Your task to perform on an android device: Open Reddit.com Image 0: 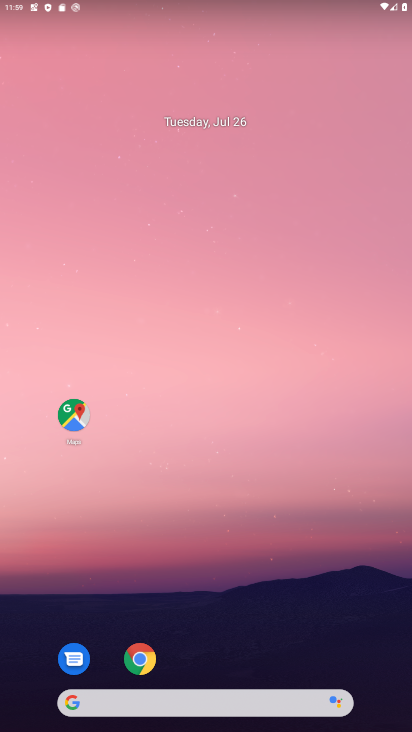
Step 0: click (141, 692)
Your task to perform on an android device: Open Reddit.com Image 1: 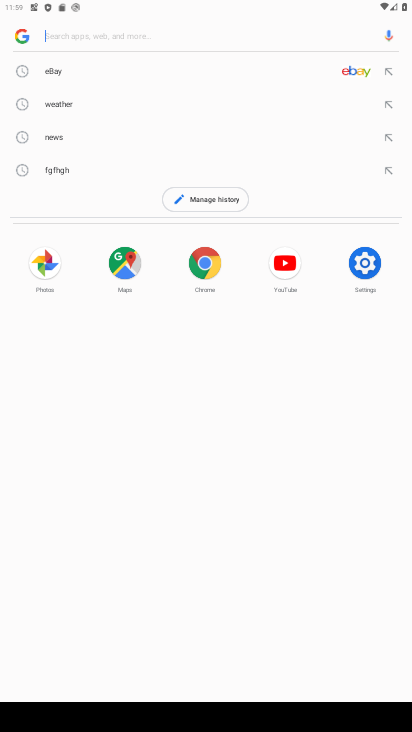
Step 1: drag from (152, 695) to (205, 302)
Your task to perform on an android device: Open Reddit.com Image 2: 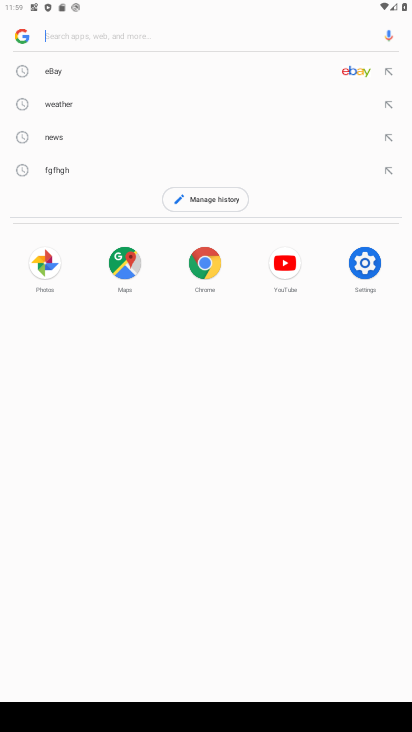
Step 2: drag from (212, 709) to (222, 329)
Your task to perform on an android device: Open Reddit.com Image 3: 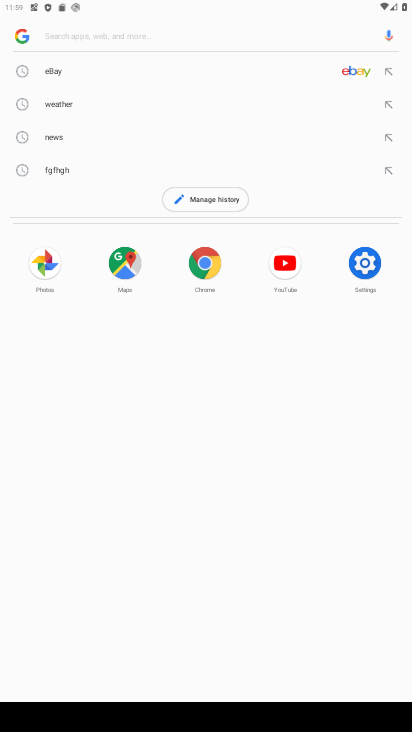
Step 3: press home button
Your task to perform on an android device: Open Reddit.com Image 4: 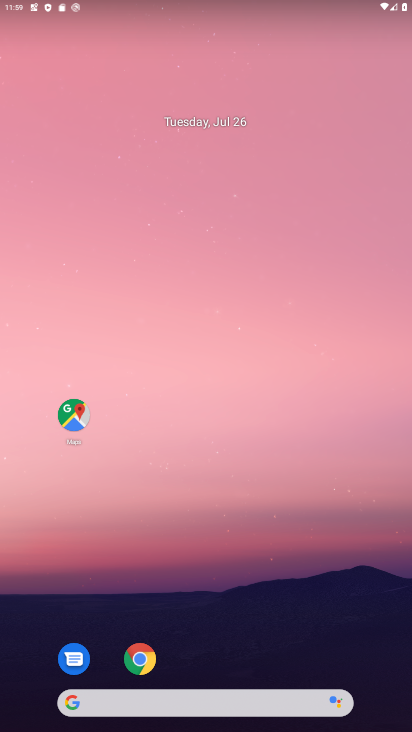
Step 4: drag from (222, 611) to (236, 91)
Your task to perform on an android device: Open Reddit.com Image 5: 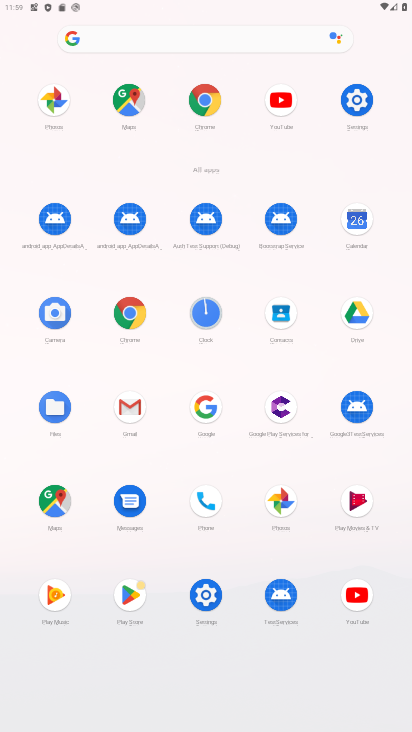
Step 5: click (161, 36)
Your task to perform on an android device: Open Reddit.com Image 6: 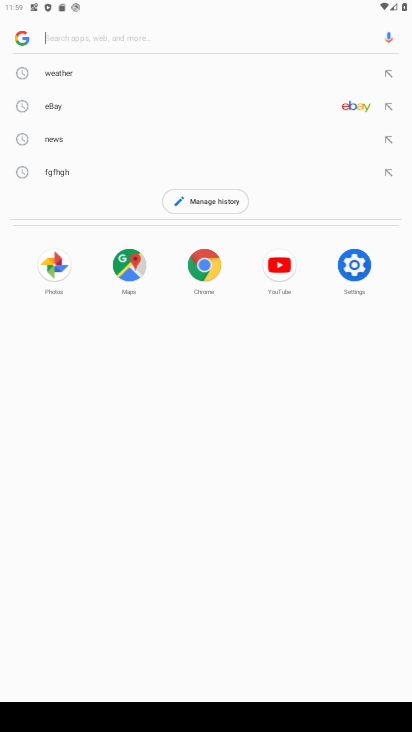
Step 6: type "reddict.com"
Your task to perform on an android device: Open Reddit.com Image 7: 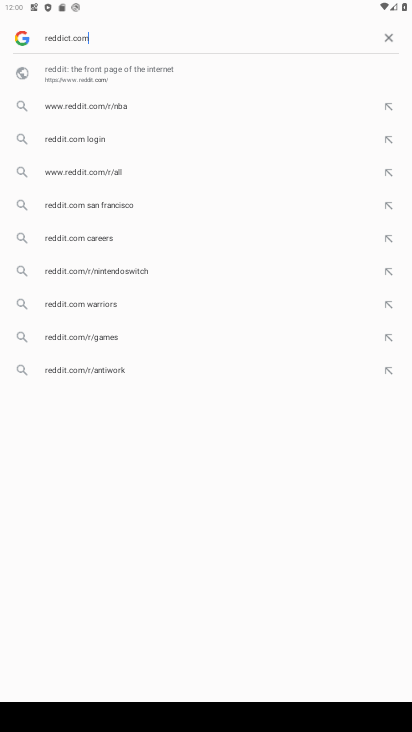
Step 7: click (147, 71)
Your task to perform on an android device: Open Reddit.com Image 8: 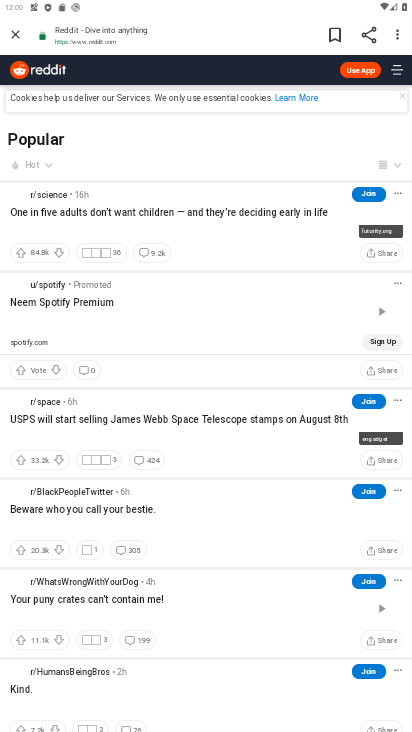
Step 8: click (360, 73)
Your task to perform on an android device: Open Reddit.com Image 9: 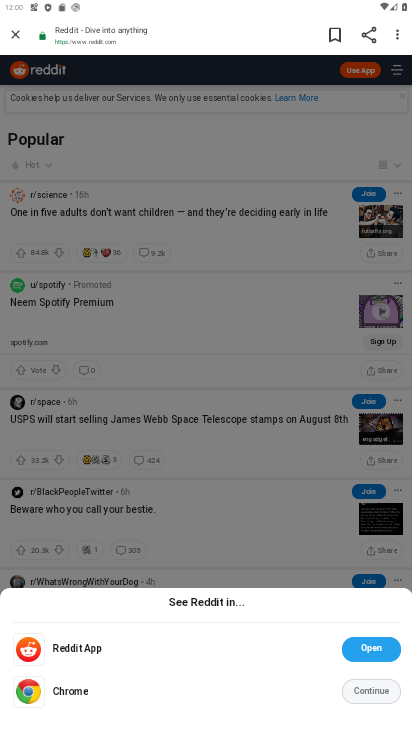
Step 9: click (363, 652)
Your task to perform on an android device: Open Reddit.com Image 10: 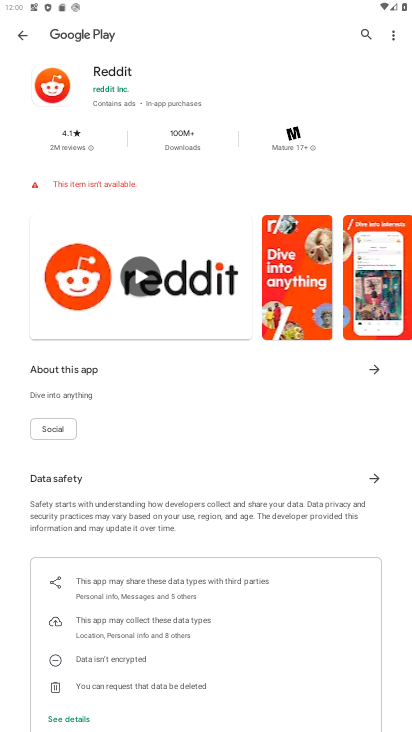
Step 10: click (19, 33)
Your task to perform on an android device: Open Reddit.com Image 11: 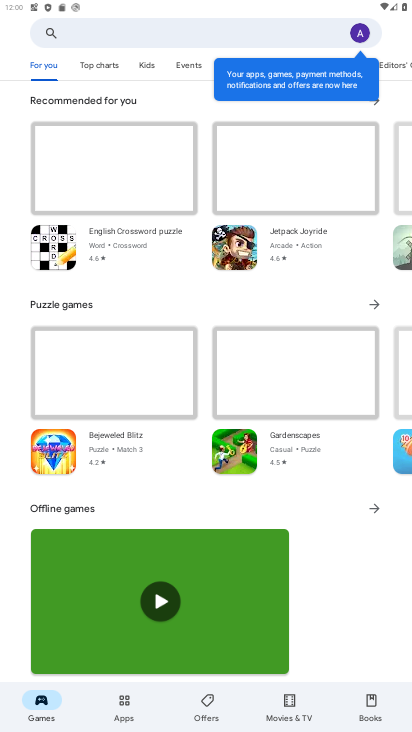
Step 11: press back button
Your task to perform on an android device: Open Reddit.com Image 12: 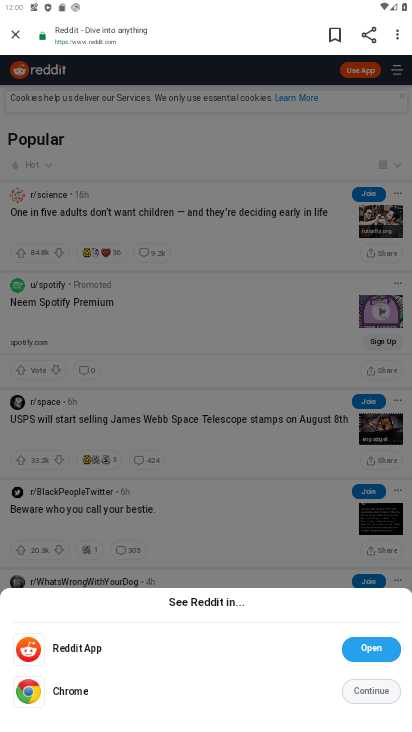
Step 12: click (275, 292)
Your task to perform on an android device: Open Reddit.com Image 13: 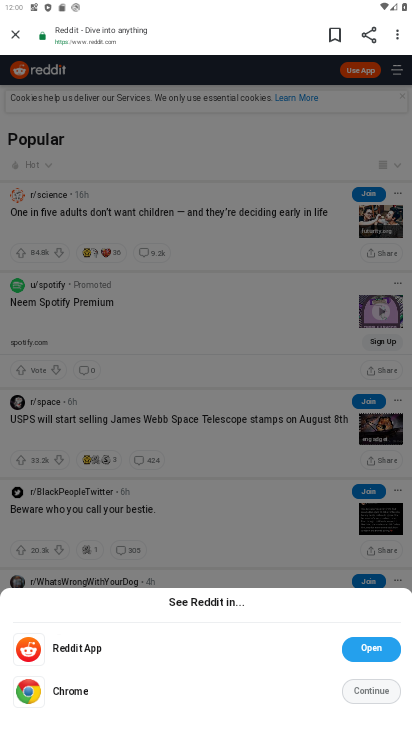
Step 13: task complete